Your task to perform on an android device: Go to sound settings Image 0: 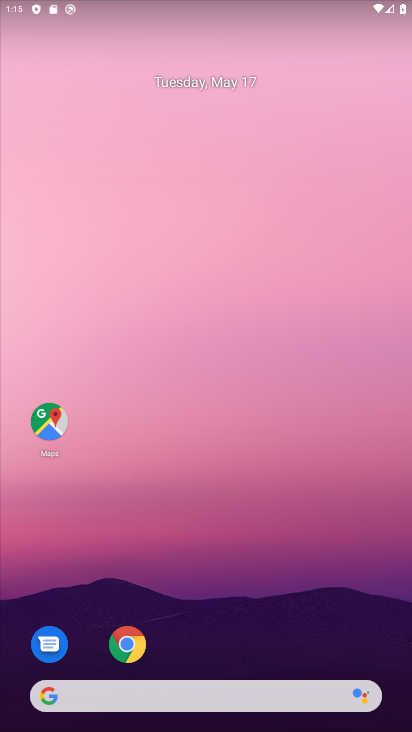
Step 0: drag from (237, 689) to (200, 141)
Your task to perform on an android device: Go to sound settings Image 1: 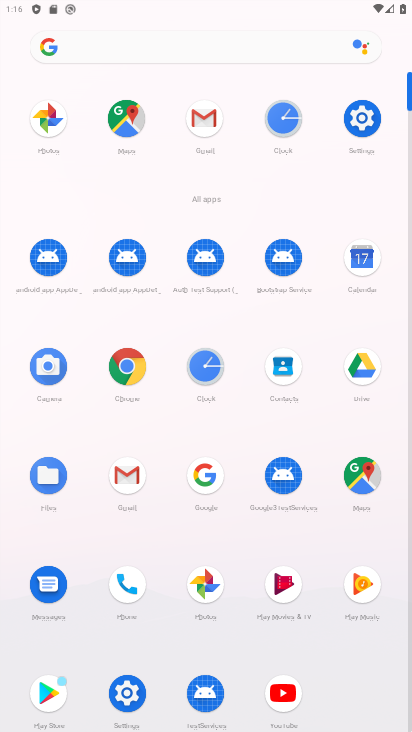
Step 1: click (129, 696)
Your task to perform on an android device: Go to sound settings Image 2: 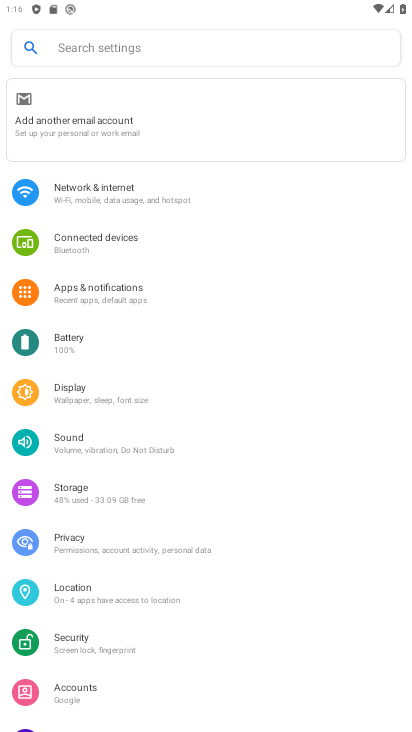
Step 2: click (92, 453)
Your task to perform on an android device: Go to sound settings Image 3: 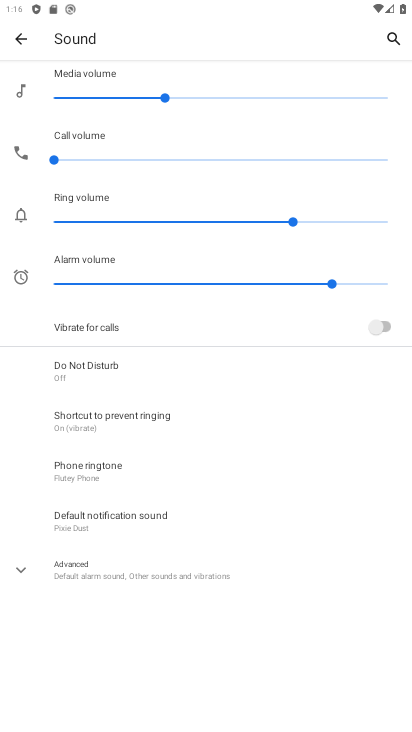
Step 3: task complete